Your task to perform on an android device: see tabs open on other devices in the chrome app Image 0: 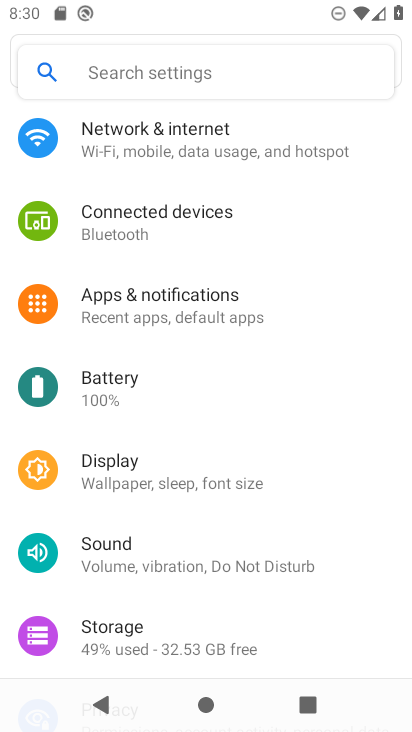
Step 0: press home button
Your task to perform on an android device: see tabs open on other devices in the chrome app Image 1: 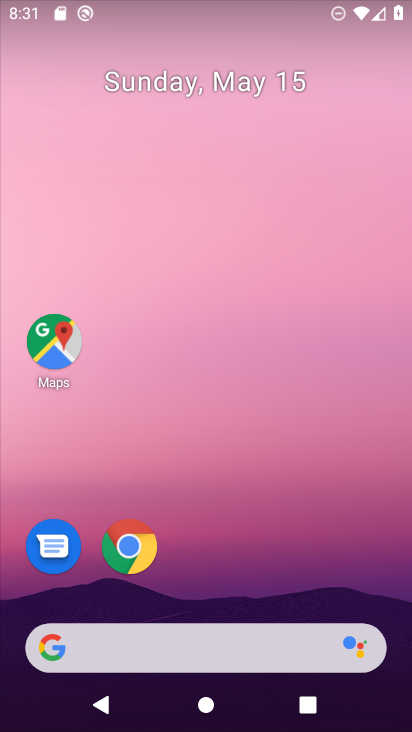
Step 1: click (139, 538)
Your task to perform on an android device: see tabs open on other devices in the chrome app Image 2: 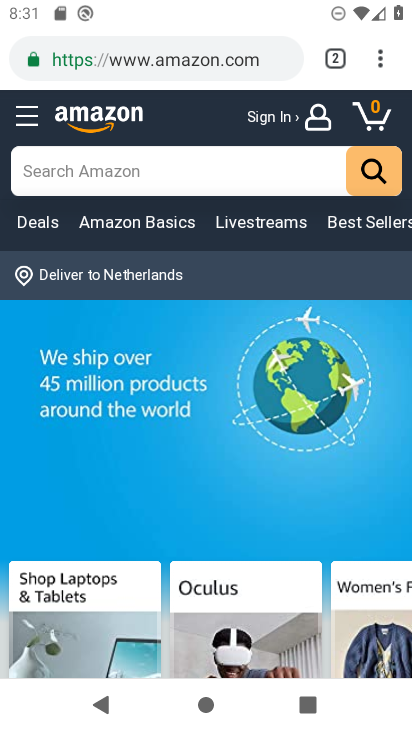
Step 2: click (381, 46)
Your task to perform on an android device: see tabs open on other devices in the chrome app Image 3: 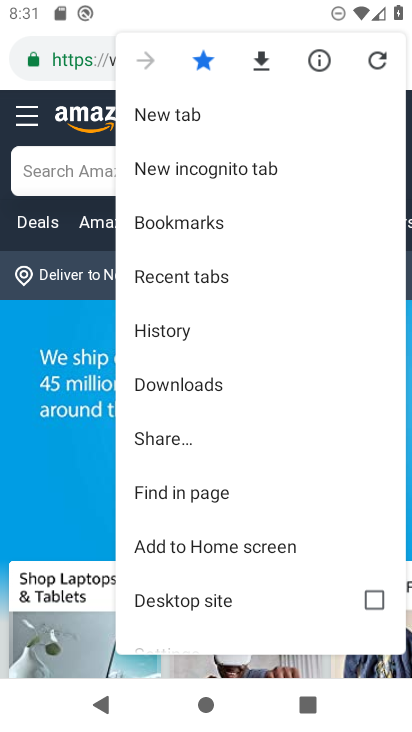
Step 3: click (218, 266)
Your task to perform on an android device: see tabs open on other devices in the chrome app Image 4: 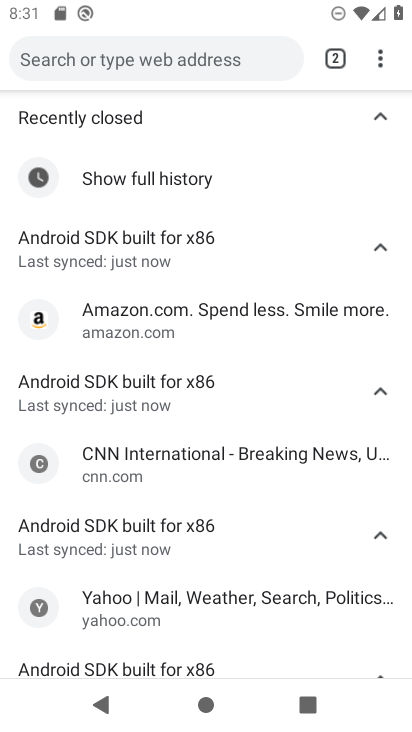
Step 4: task complete